Your task to perform on an android device: Open the web browser Image 0: 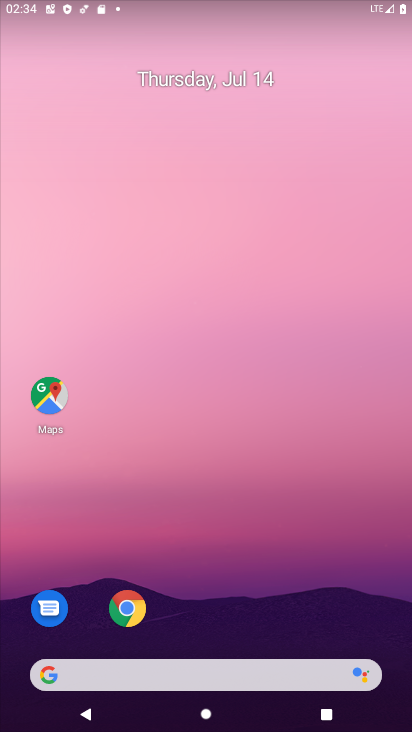
Step 0: drag from (44, 495) to (216, 47)
Your task to perform on an android device: Open the web browser Image 1: 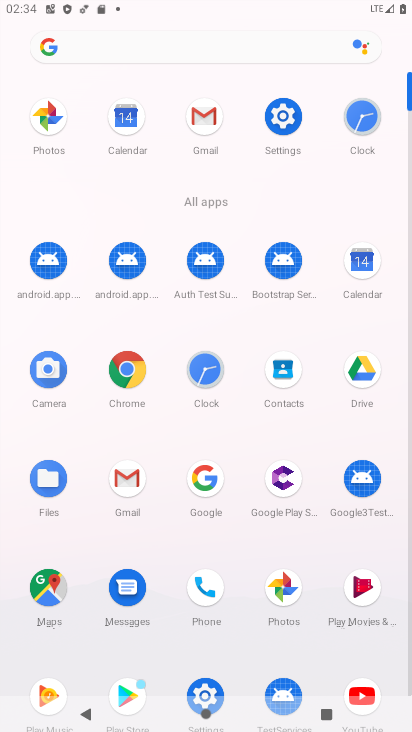
Step 1: click (272, 113)
Your task to perform on an android device: Open the web browser Image 2: 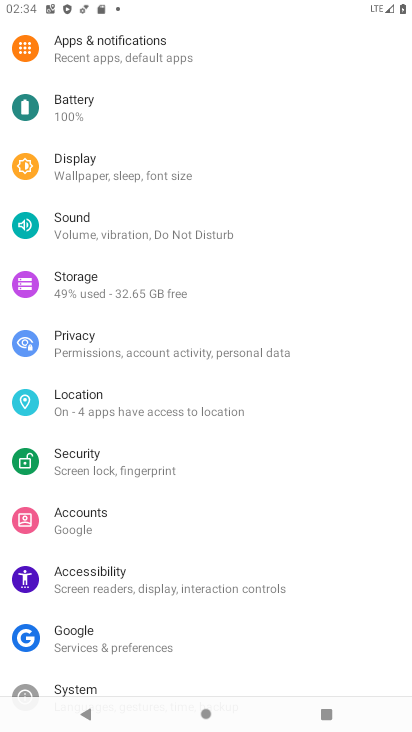
Step 2: task complete